Your task to perform on an android device: change your default location settings in chrome Image 0: 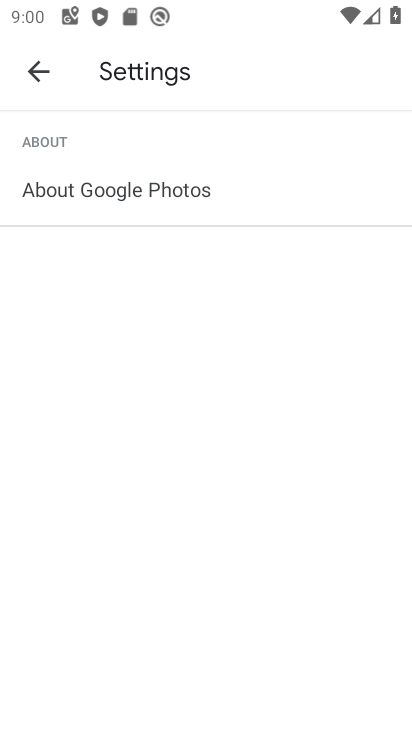
Step 0: press home button
Your task to perform on an android device: change your default location settings in chrome Image 1: 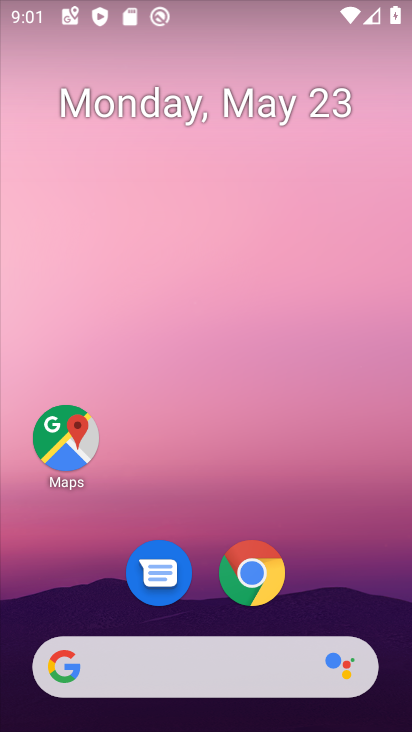
Step 1: drag from (356, 593) to (320, 254)
Your task to perform on an android device: change your default location settings in chrome Image 2: 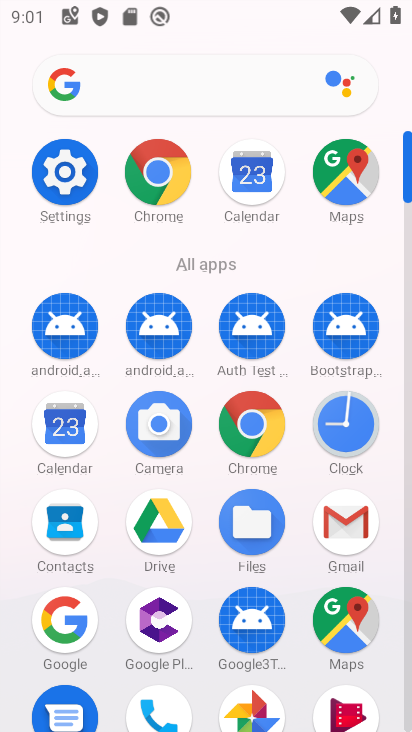
Step 2: click (269, 441)
Your task to perform on an android device: change your default location settings in chrome Image 3: 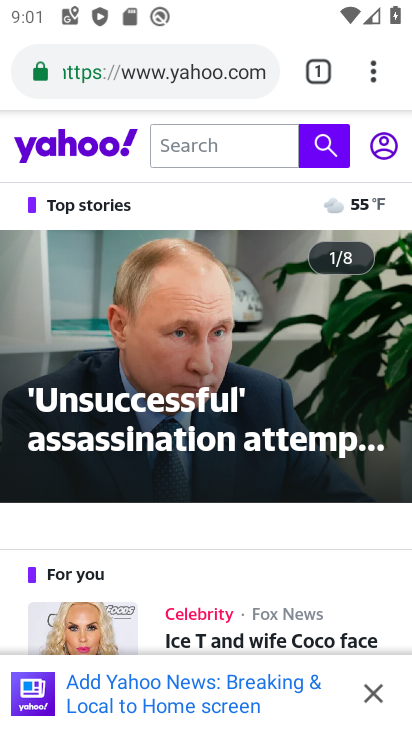
Step 3: click (378, 75)
Your task to perform on an android device: change your default location settings in chrome Image 4: 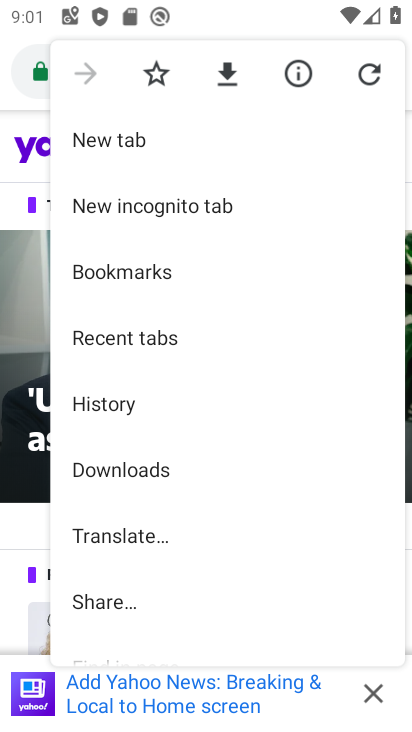
Step 4: drag from (266, 571) to (271, 482)
Your task to perform on an android device: change your default location settings in chrome Image 5: 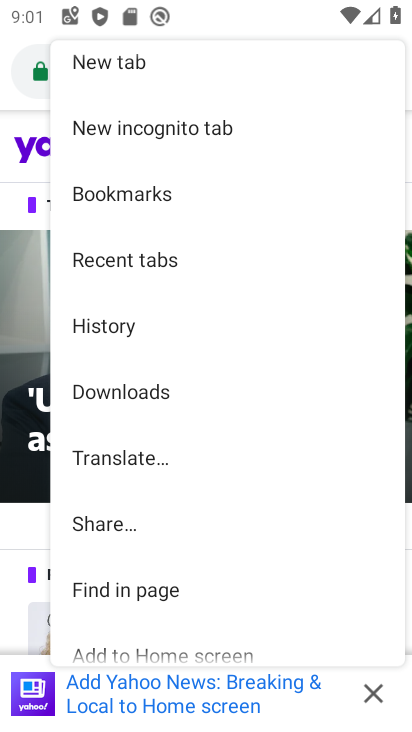
Step 5: drag from (261, 607) to (256, 503)
Your task to perform on an android device: change your default location settings in chrome Image 6: 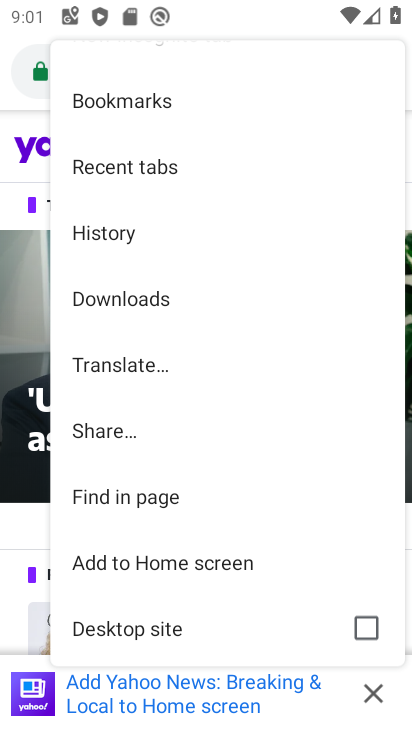
Step 6: drag from (280, 609) to (291, 475)
Your task to perform on an android device: change your default location settings in chrome Image 7: 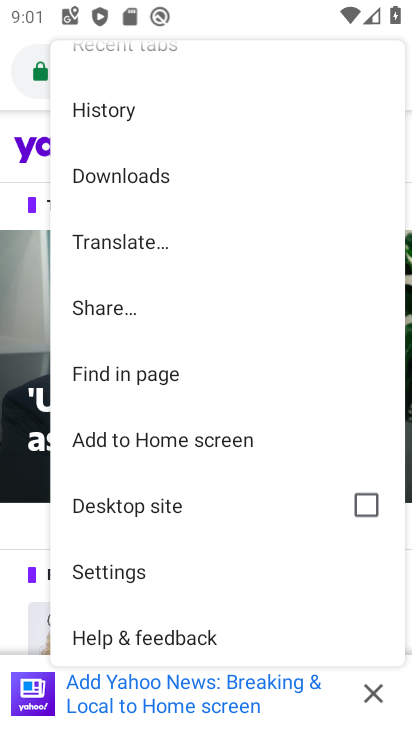
Step 7: drag from (286, 607) to (284, 498)
Your task to perform on an android device: change your default location settings in chrome Image 8: 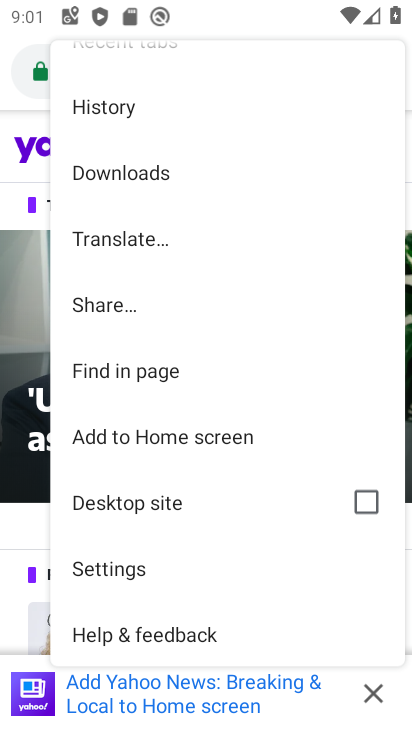
Step 8: click (132, 577)
Your task to perform on an android device: change your default location settings in chrome Image 9: 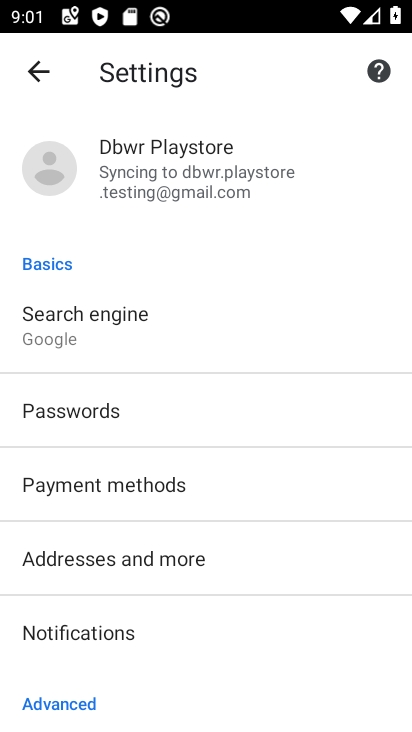
Step 9: drag from (331, 593) to (336, 511)
Your task to perform on an android device: change your default location settings in chrome Image 10: 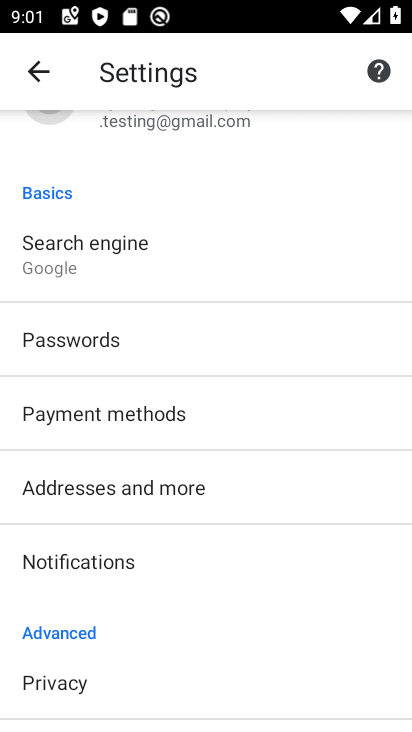
Step 10: drag from (317, 553) to (323, 433)
Your task to perform on an android device: change your default location settings in chrome Image 11: 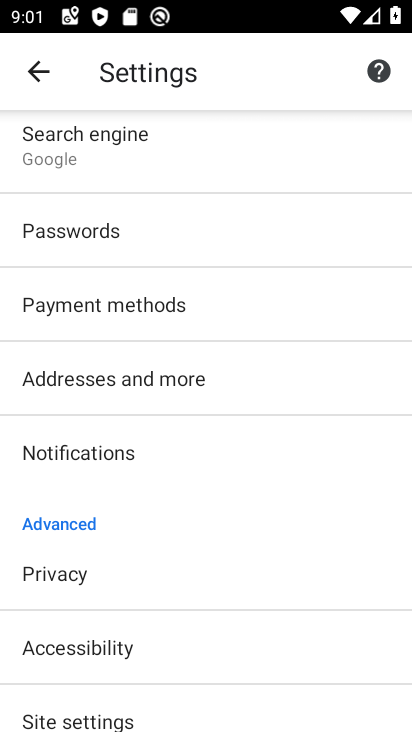
Step 11: drag from (309, 626) to (311, 538)
Your task to perform on an android device: change your default location settings in chrome Image 12: 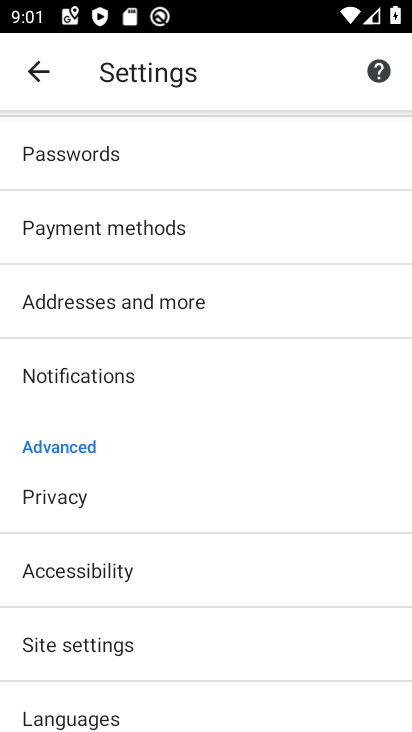
Step 12: drag from (316, 652) to (317, 550)
Your task to perform on an android device: change your default location settings in chrome Image 13: 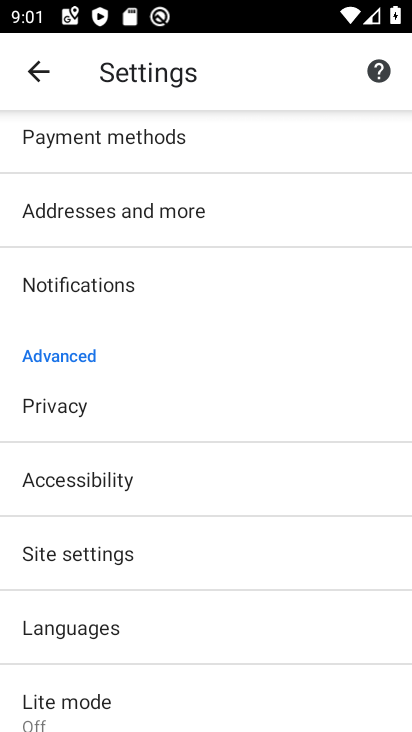
Step 13: drag from (347, 671) to (353, 576)
Your task to perform on an android device: change your default location settings in chrome Image 14: 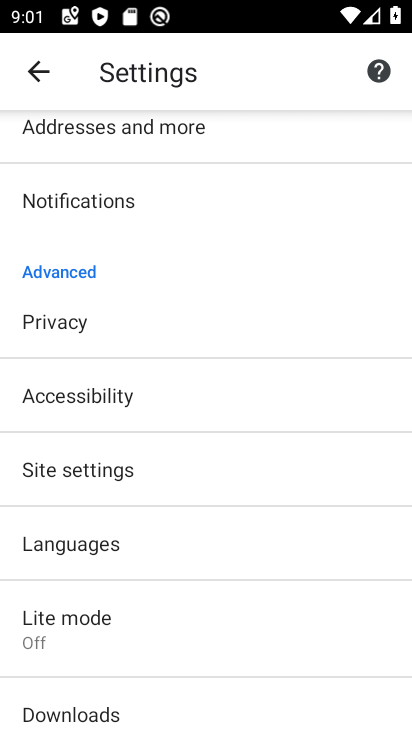
Step 14: drag from (339, 693) to (336, 547)
Your task to perform on an android device: change your default location settings in chrome Image 15: 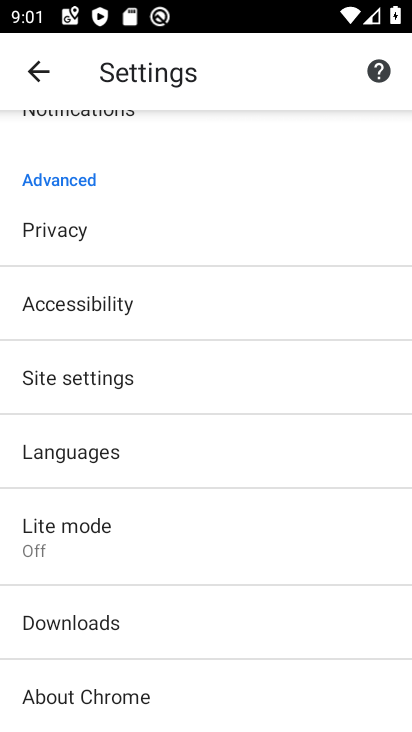
Step 15: click (176, 381)
Your task to perform on an android device: change your default location settings in chrome Image 16: 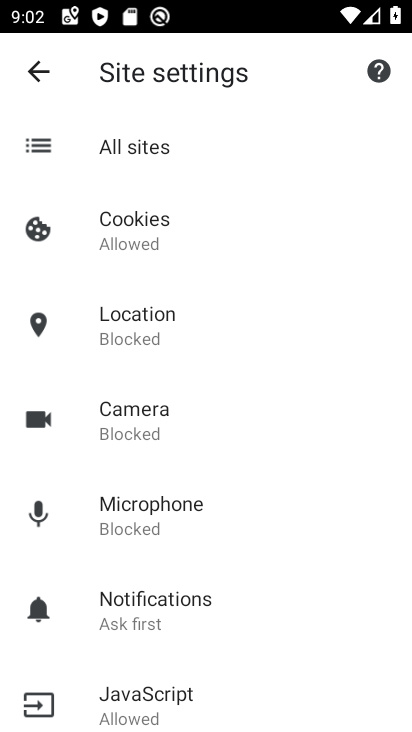
Step 16: drag from (295, 571) to (308, 469)
Your task to perform on an android device: change your default location settings in chrome Image 17: 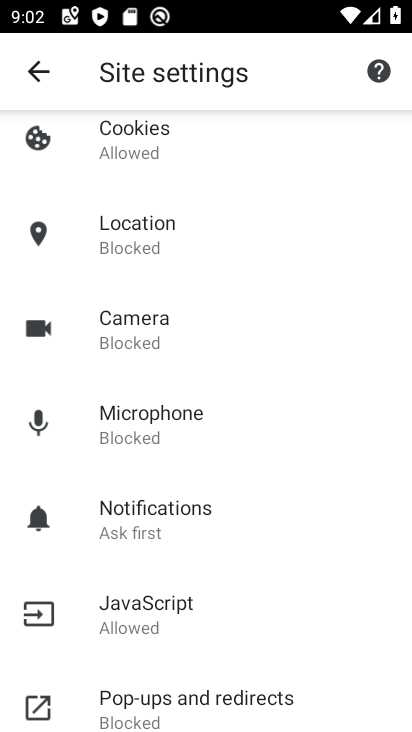
Step 17: drag from (321, 589) to (329, 521)
Your task to perform on an android device: change your default location settings in chrome Image 18: 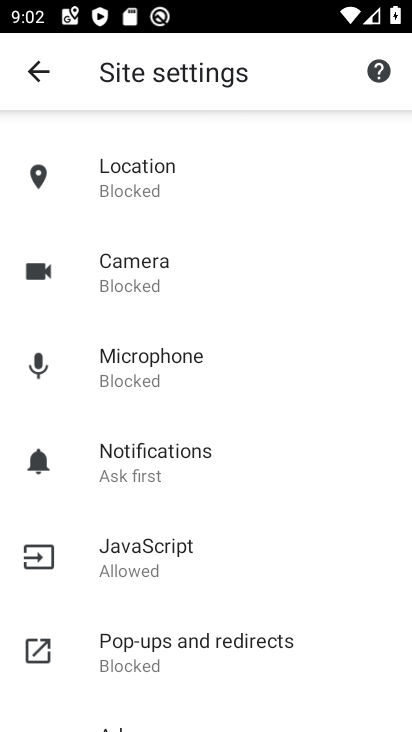
Step 18: drag from (335, 318) to (341, 425)
Your task to perform on an android device: change your default location settings in chrome Image 19: 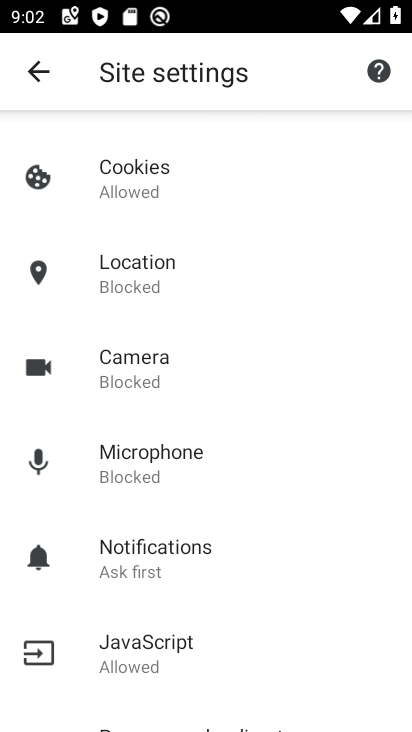
Step 19: click (226, 259)
Your task to perform on an android device: change your default location settings in chrome Image 20: 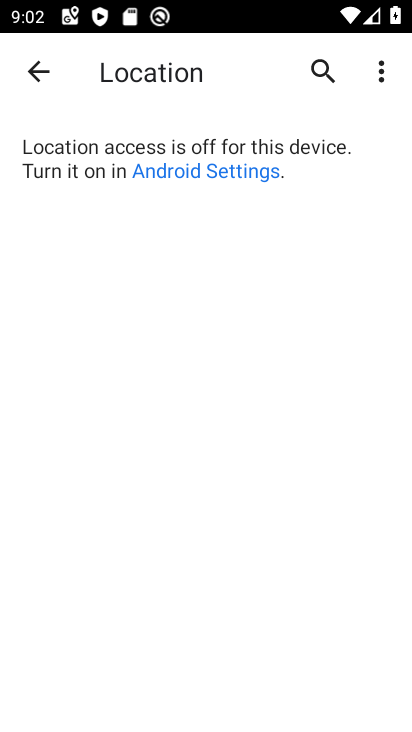
Step 20: click (245, 167)
Your task to perform on an android device: change your default location settings in chrome Image 21: 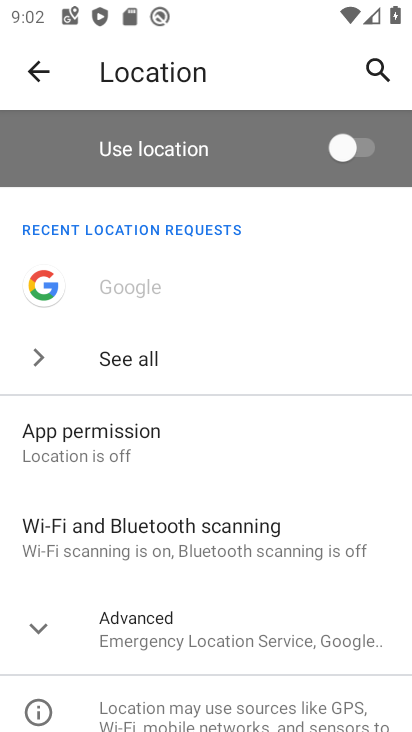
Step 21: click (336, 144)
Your task to perform on an android device: change your default location settings in chrome Image 22: 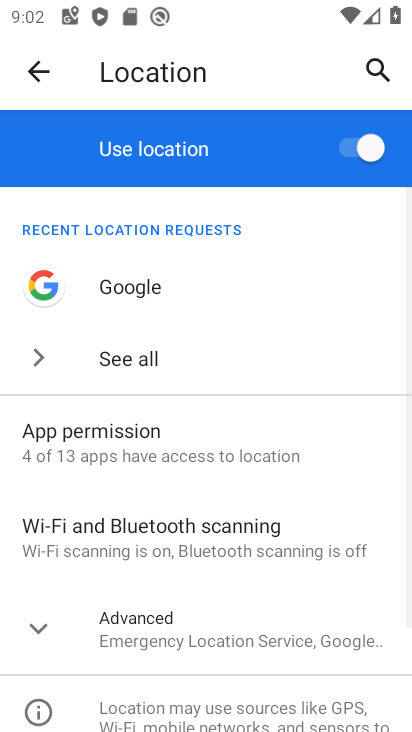
Step 22: task complete